Your task to perform on an android device: turn off location history Image 0: 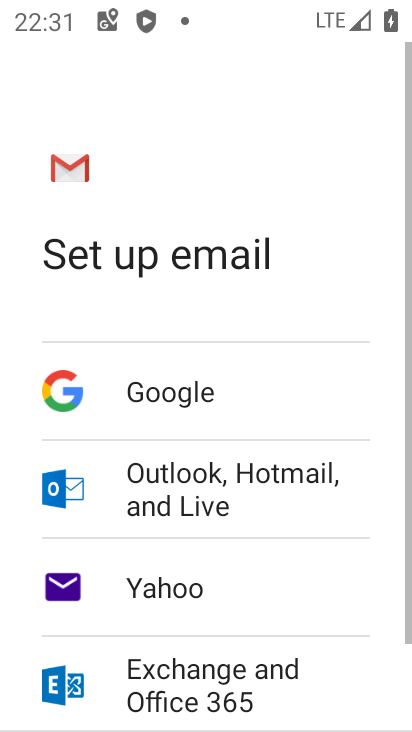
Step 0: press home button
Your task to perform on an android device: turn off location history Image 1: 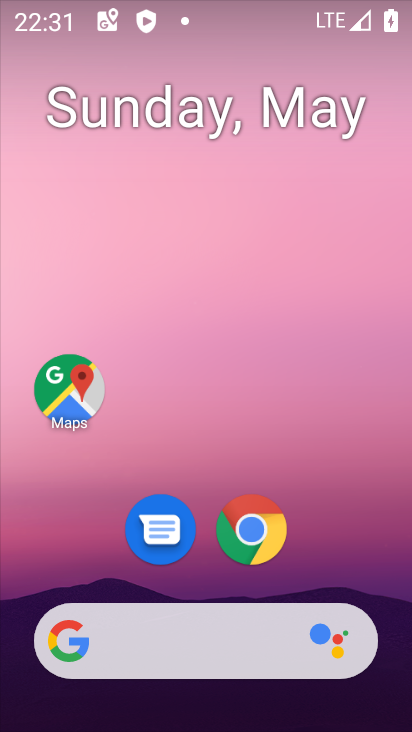
Step 1: drag from (364, 570) to (325, 253)
Your task to perform on an android device: turn off location history Image 2: 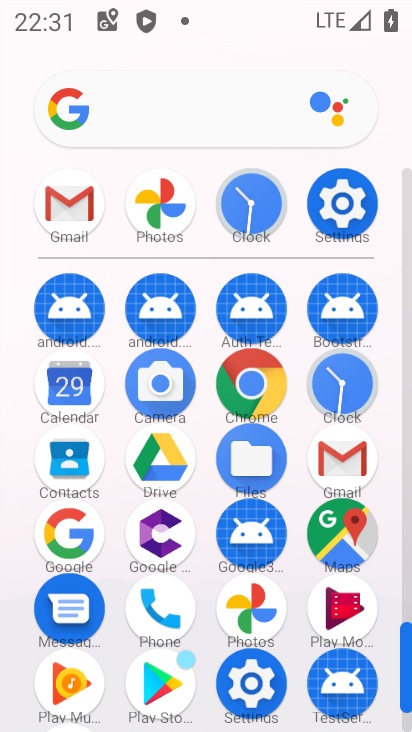
Step 2: click (336, 234)
Your task to perform on an android device: turn off location history Image 3: 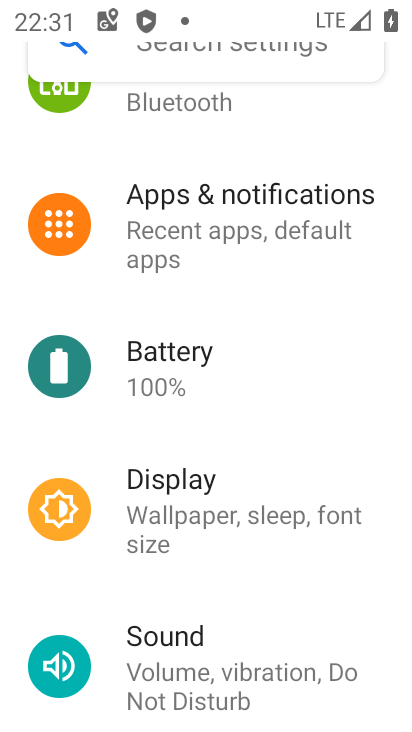
Step 3: task complete